Your task to perform on an android device: Open sound settings Image 0: 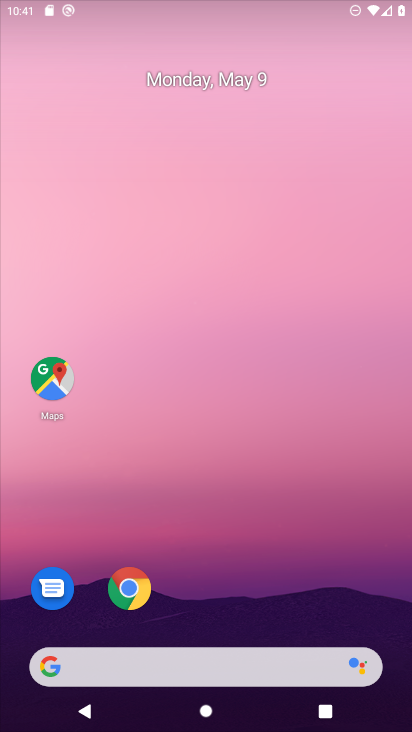
Step 0: drag from (324, 595) to (255, 81)
Your task to perform on an android device: Open sound settings Image 1: 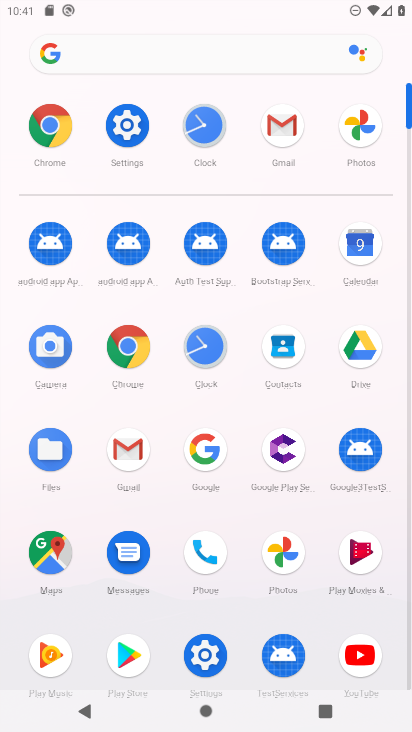
Step 1: click (145, 146)
Your task to perform on an android device: Open sound settings Image 2: 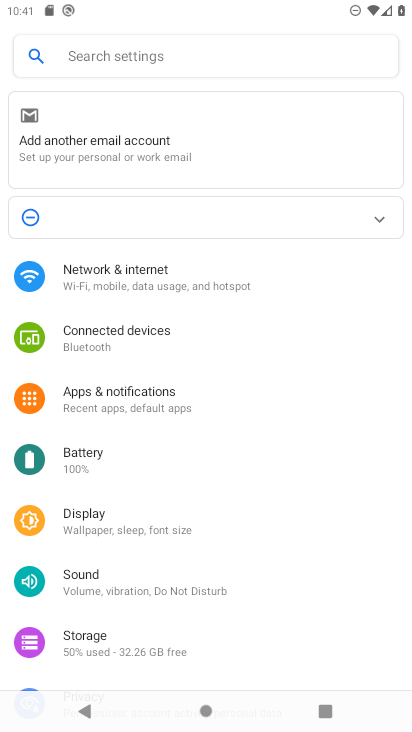
Step 2: click (115, 591)
Your task to perform on an android device: Open sound settings Image 3: 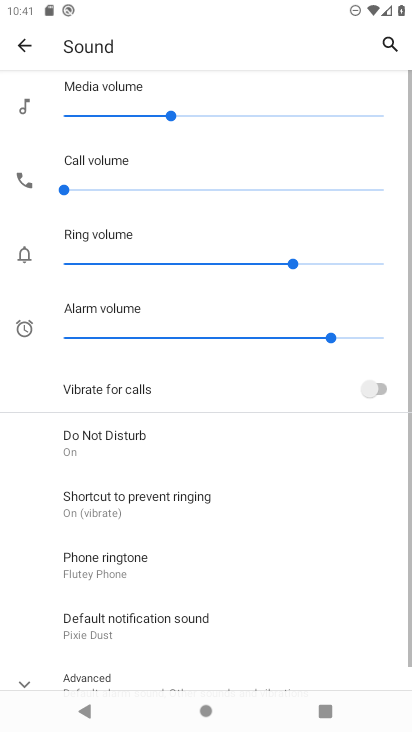
Step 3: task complete